Your task to perform on an android device: Play the last video I watched on Youtube Image 0: 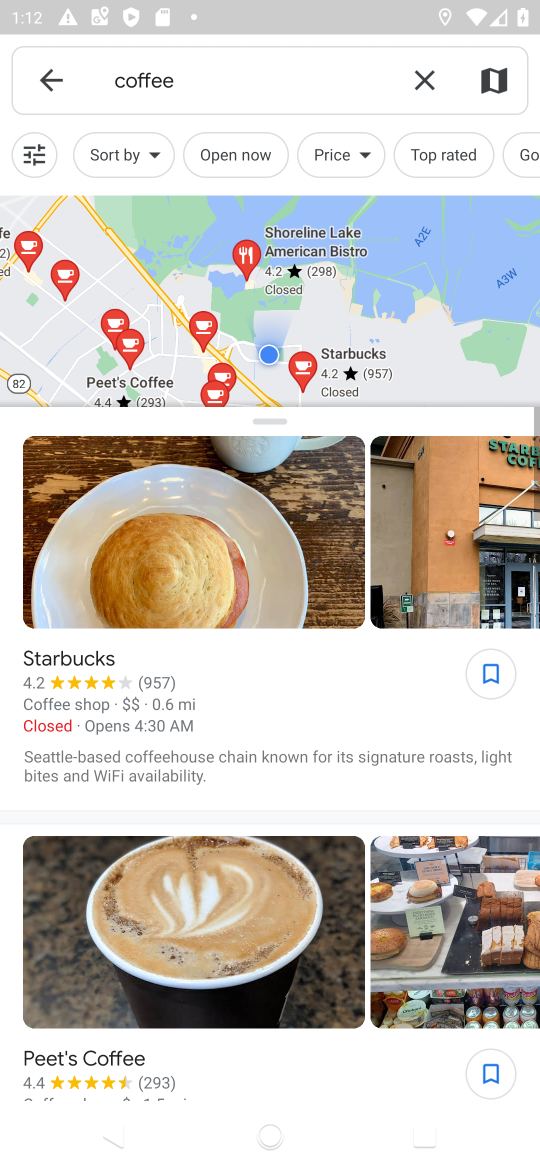
Step 0: press home button
Your task to perform on an android device: Play the last video I watched on Youtube Image 1: 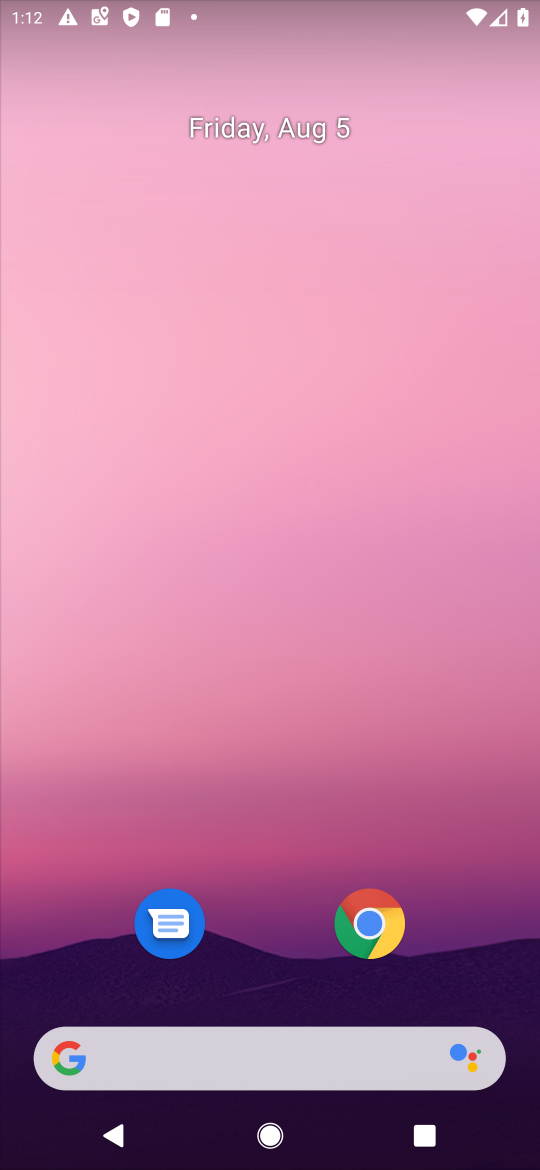
Step 1: drag from (277, 968) to (169, 194)
Your task to perform on an android device: Play the last video I watched on Youtube Image 2: 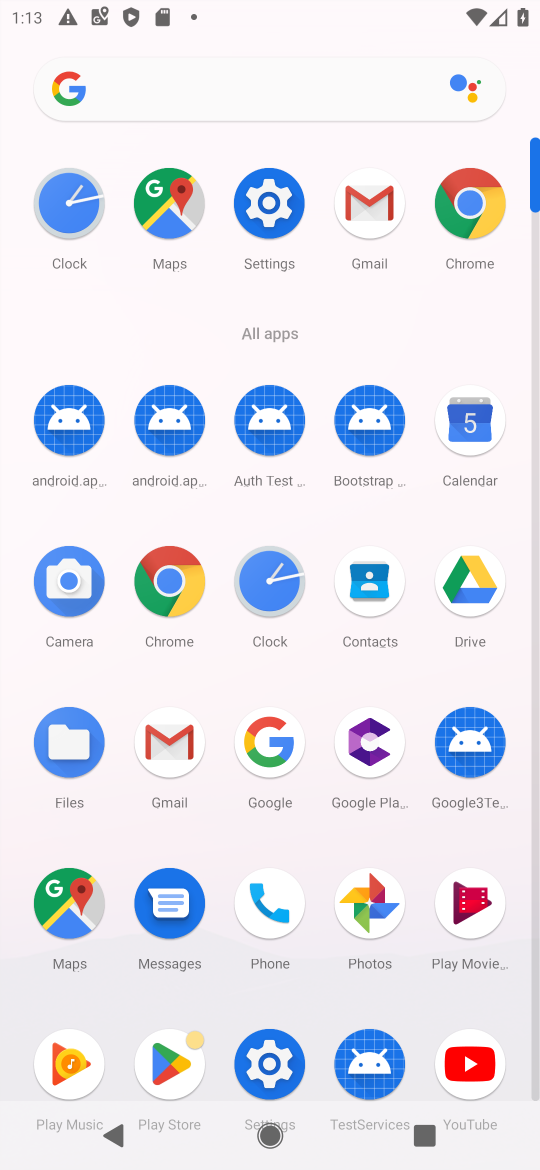
Step 2: click (486, 1078)
Your task to perform on an android device: Play the last video I watched on Youtube Image 3: 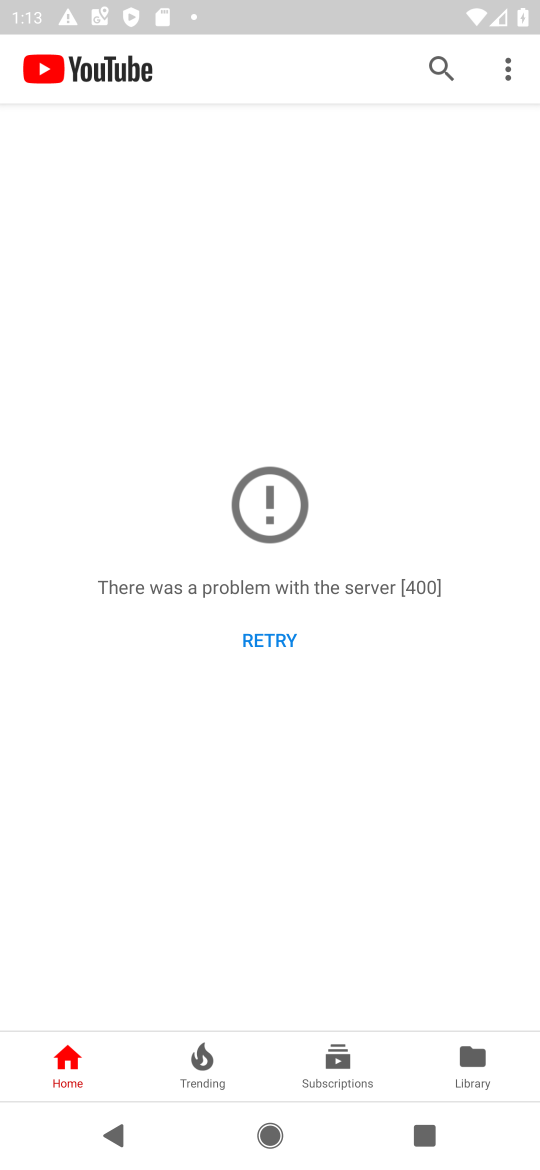
Step 3: task complete